Your task to perform on an android device: open a bookmark in the chrome app Image 0: 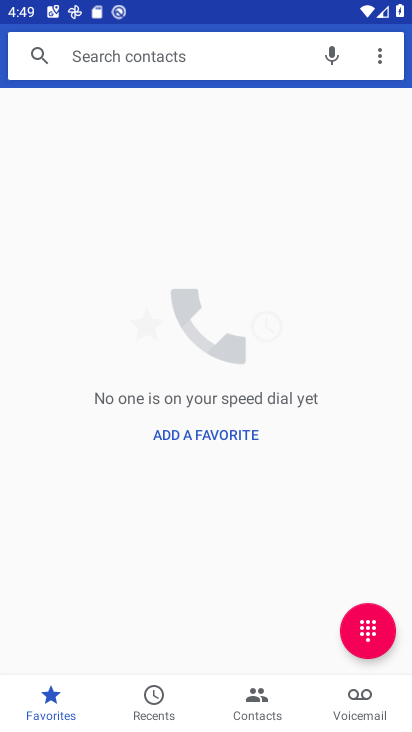
Step 0: press home button
Your task to perform on an android device: open a bookmark in the chrome app Image 1: 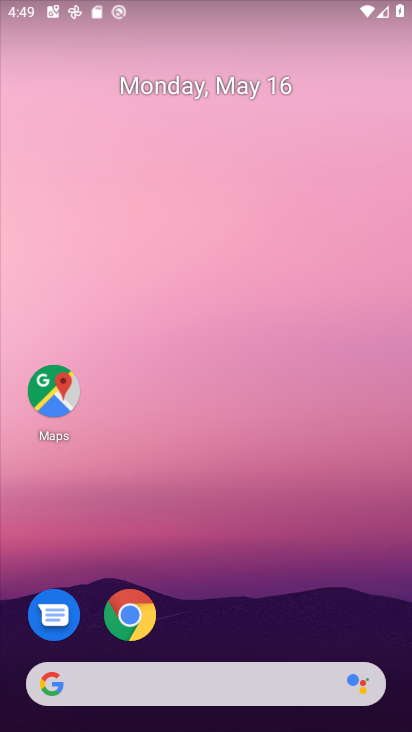
Step 1: drag from (225, 616) to (325, 104)
Your task to perform on an android device: open a bookmark in the chrome app Image 2: 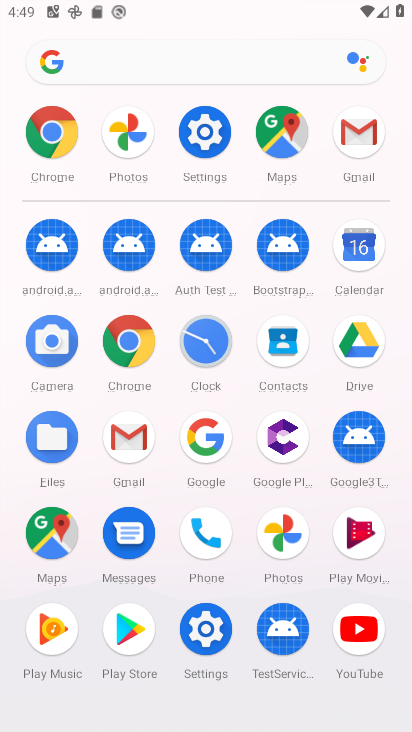
Step 2: click (57, 126)
Your task to perform on an android device: open a bookmark in the chrome app Image 3: 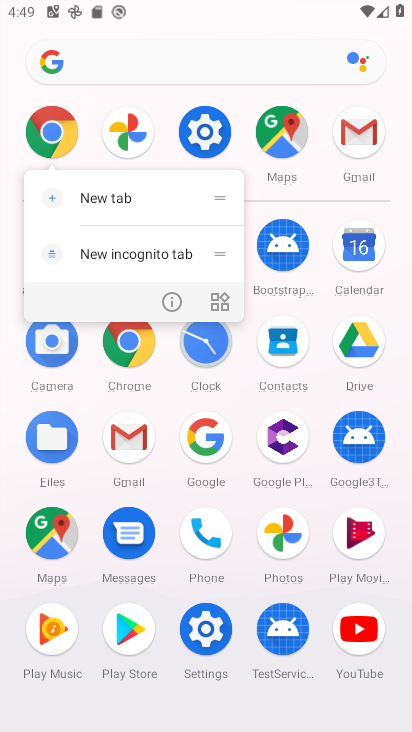
Step 3: click (26, 117)
Your task to perform on an android device: open a bookmark in the chrome app Image 4: 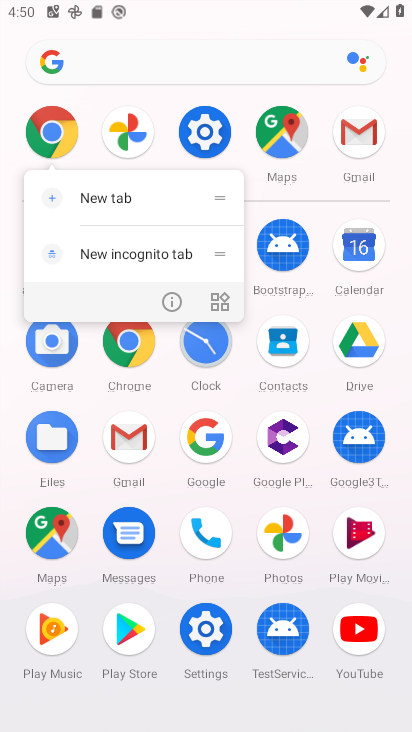
Step 4: click (44, 145)
Your task to perform on an android device: open a bookmark in the chrome app Image 5: 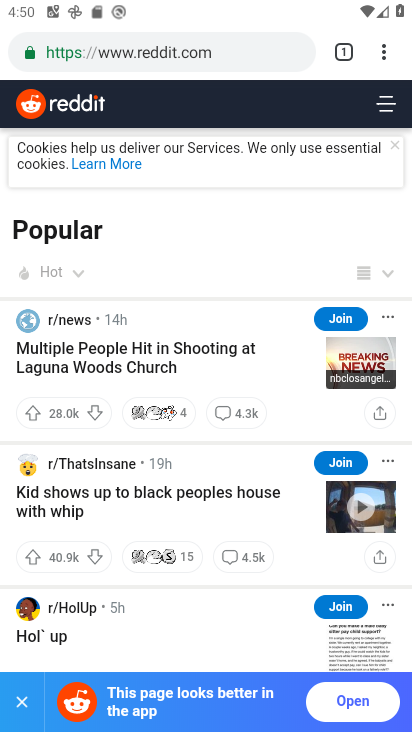
Step 5: click (384, 56)
Your task to perform on an android device: open a bookmark in the chrome app Image 6: 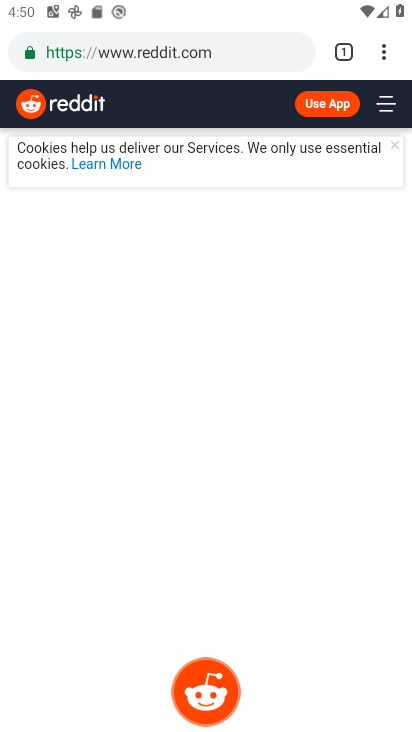
Step 6: click (381, 53)
Your task to perform on an android device: open a bookmark in the chrome app Image 7: 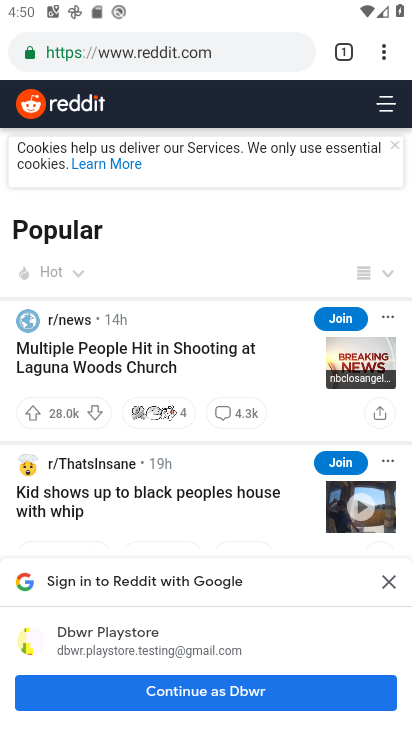
Step 7: click (382, 50)
Your task to perform on an android device: open a bookmark in the chrome app Image 8: 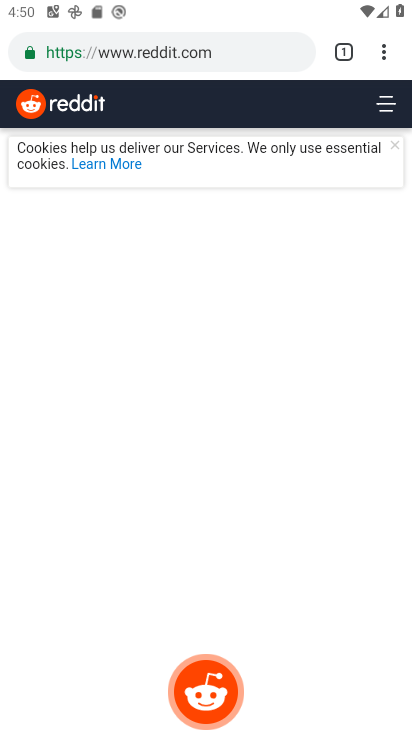
Step 8: click (387, 49)
Your task to perform on an android device: open a bookmark in the chrome app Image 9: 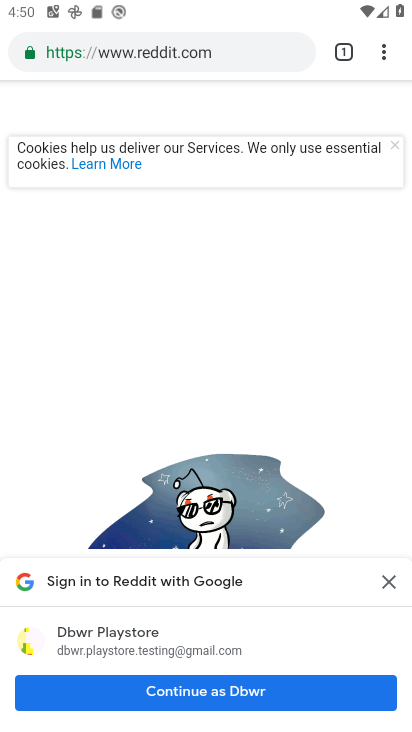
Step 9: click (383, 52)
Your task to perform on an android device: open a bookmark in the chrome app Image 10: 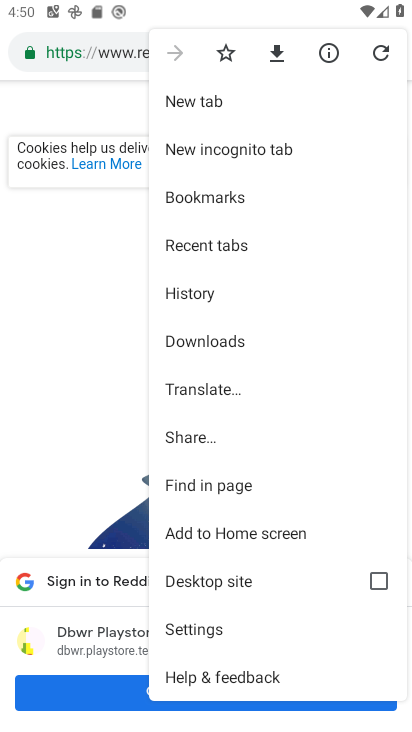
Step 10: click (224, 200)
Your task to perform on an android device: open a bookmark in the chrome app Image 11: 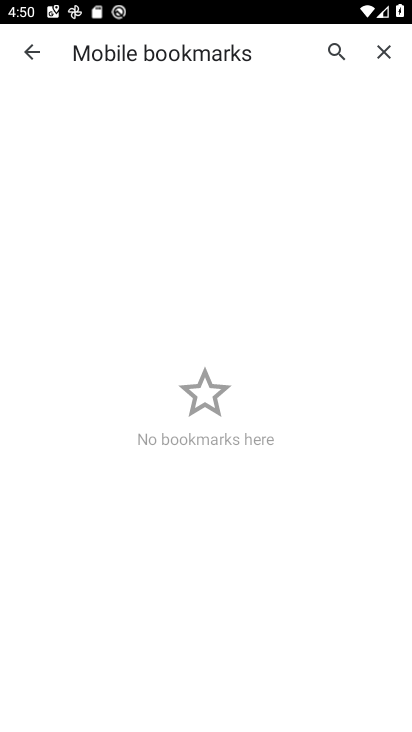
Step 11: task complete